Your task to perform on an android device: Check the news Image 0: 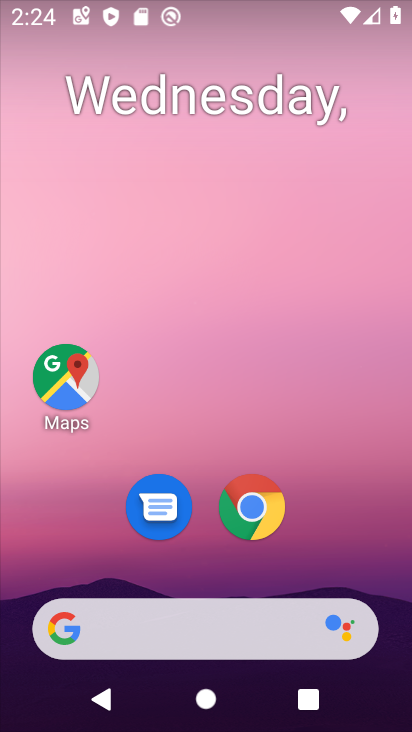
Step 0: click (159, 631)
Your task to perform on an android device: Check the news Image 1: 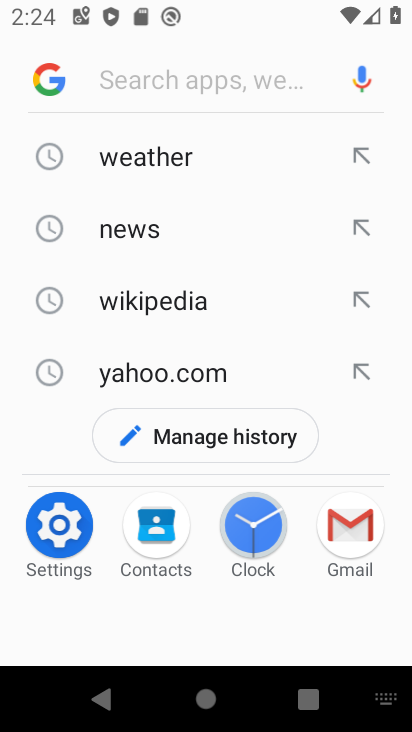
Step 1: click (132, 227)
Your task to perform on an android device: Check the news Image 2: 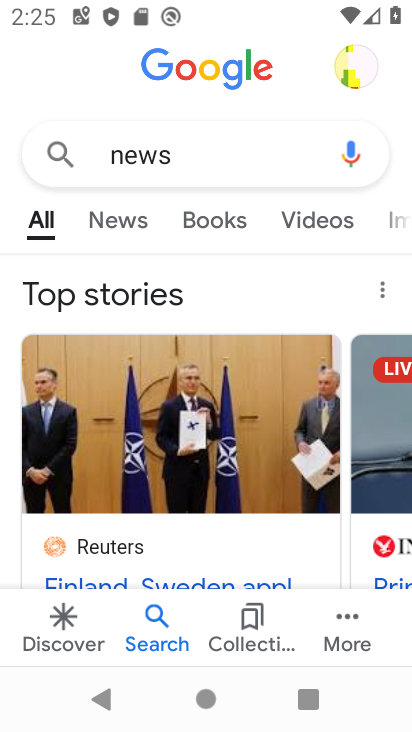
Step 2: task complete